Your task to perform on an android device: Open Google Chrome and click the shortcut for Amazon.com Image 0: 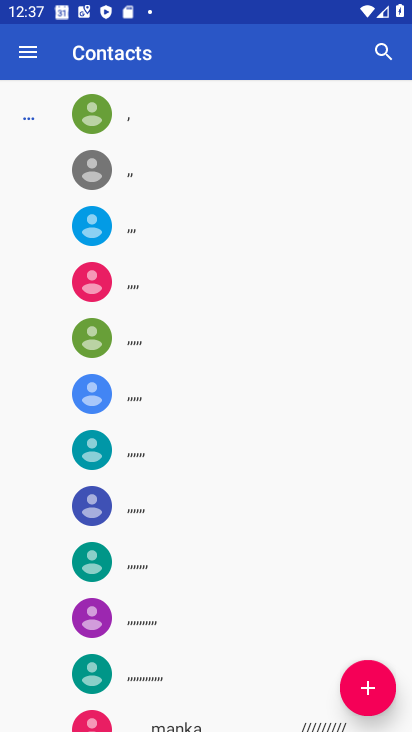
Step 0: press back button
Your task to perform on an android device: Open Google Chrome and click the shortcut for Amazon.com Image 1: 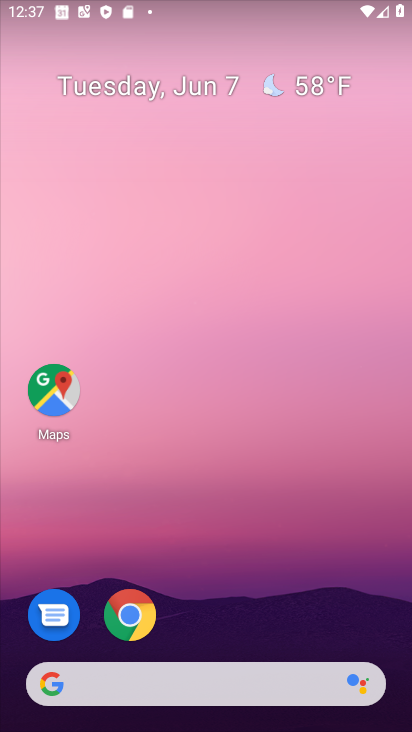
Step 1: click (129, 615)
Your task to perform on an android device: Open Google Chrome and click the shortcut for Amazon.com Image 2: 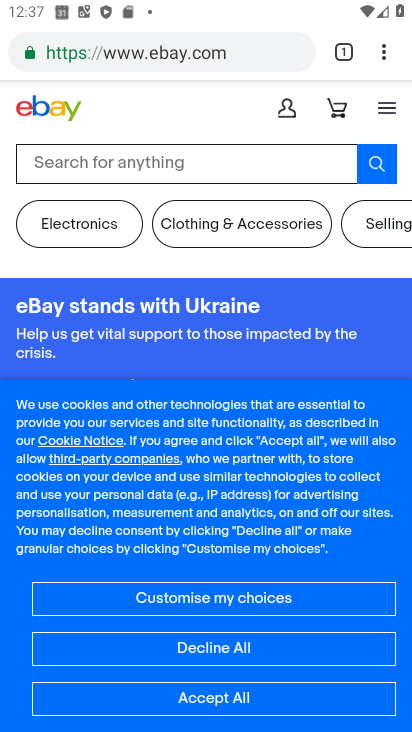
Step 2: click (272, 53)
Your task to perform on an android device: Open Google Chrome and click the shortcut for Amazon.com Image 3: 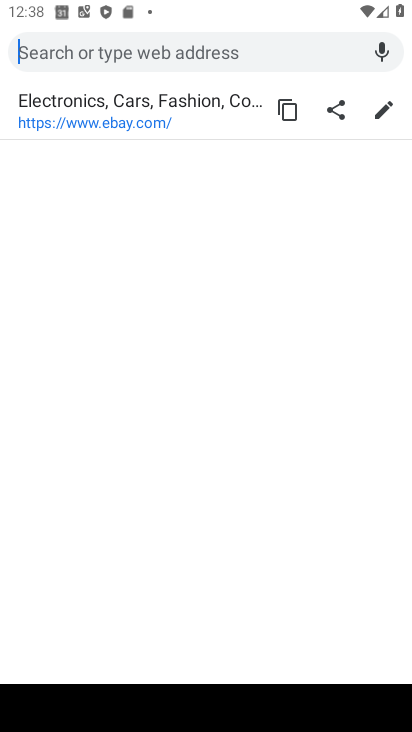
Step 3: type "Amazon.com"
Your task to perform on an android device: Open Google Chrome and click the shortcut for Amazon.com Image 4: 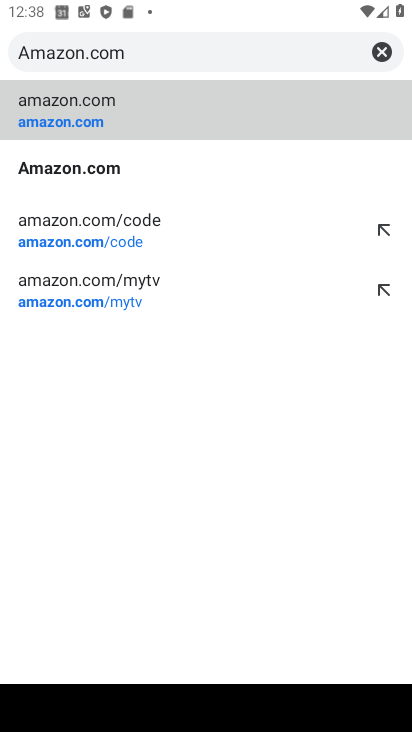
Step 4: click (114, 172)
Your task to perform on an android device: Open Google Chrome and click the shortcut for Amazon.com Image 5: 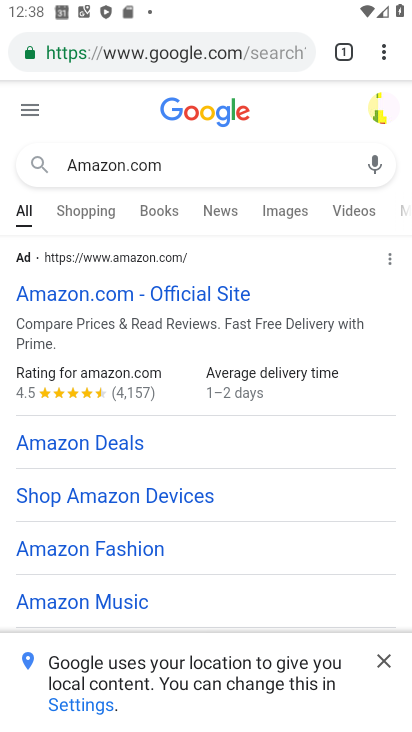
Step 5: click (116, 293)
Your task to perform on an android device: Open Google Chrome and click the shortcut for Amazon.com Image 6: 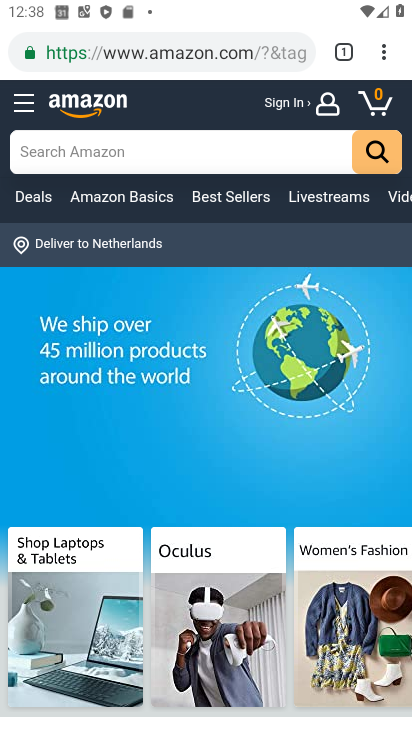
Step 6: click (384, 51)
Your task to perform on an android device: Open Google Chrome and click the shortcut for Amazon.com Image 7: 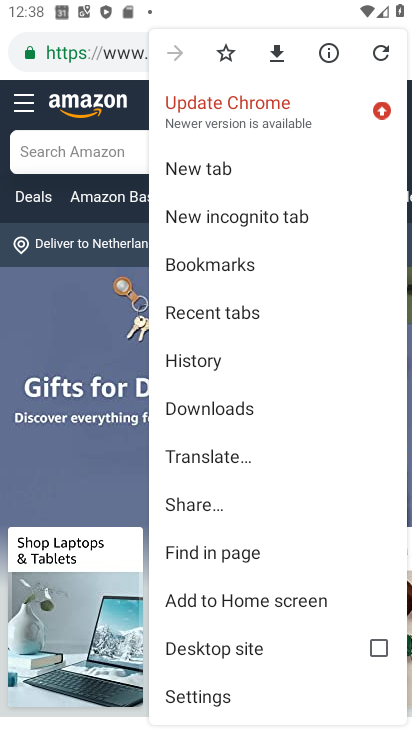
Step 7: click (263, 604)
Your task to perform on an android device: Open Google Chrome and click the shortcut for Amazon.com Image 8: 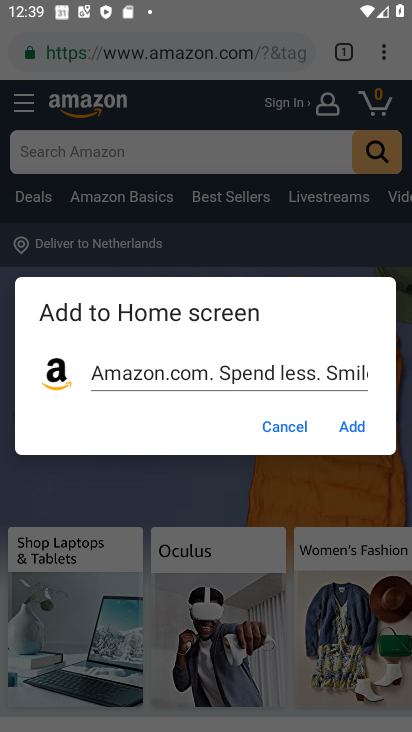
Step 8: click (357, 431)
Your task to perform on an android device: Open Google Chrome and click the shortcut for Amazon.com Image 9: 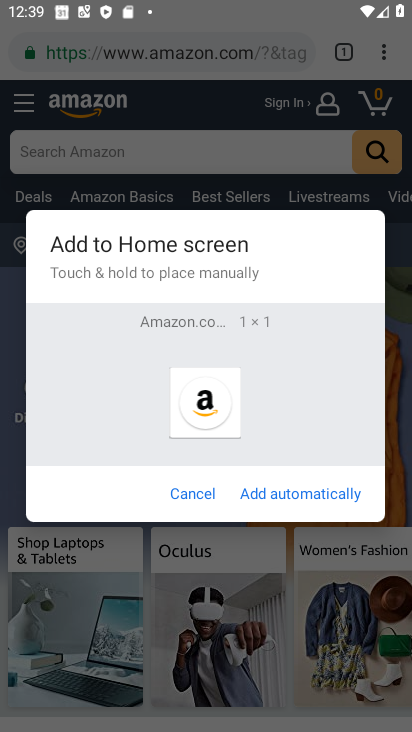
Step 9: click (258, 490)
Your task to perform on an android device: Open Google Chrome and click the shortcut for Amazon.com Image 10: 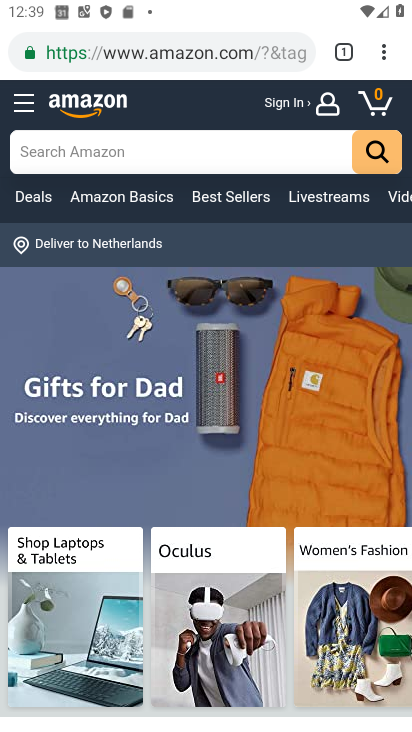
Step 10: task complete